Your task to perform on an android device: check google app version Image 0: 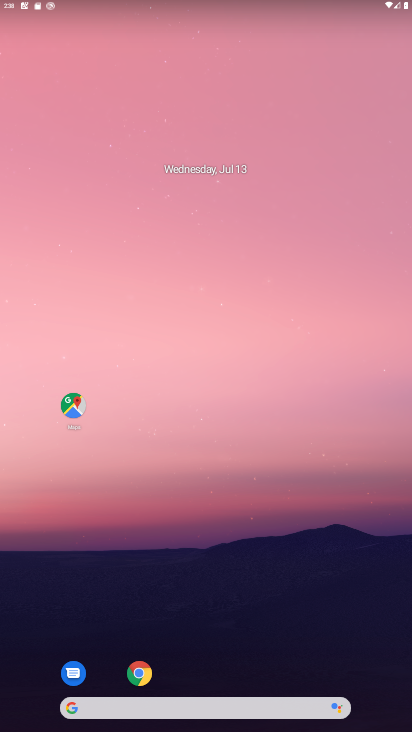
Step 0: drag from (236, 679) to (337, 171)
Your task to perform on an android device: check google app version Image 1: 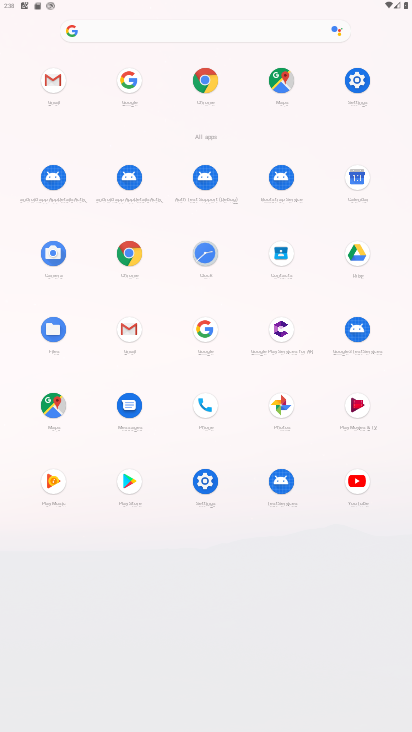
Step 1: click (198, 483)
Your task to perform on an android device: check google app version Image 2: 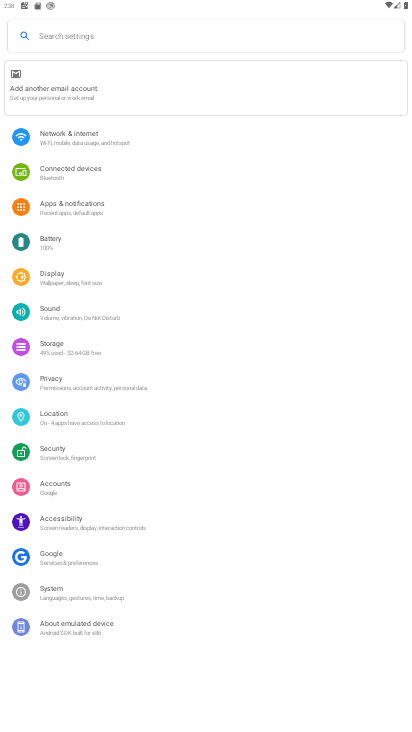
Step 2: click (89, 209)
Your task to perform on an android device: check google app version Image 3: 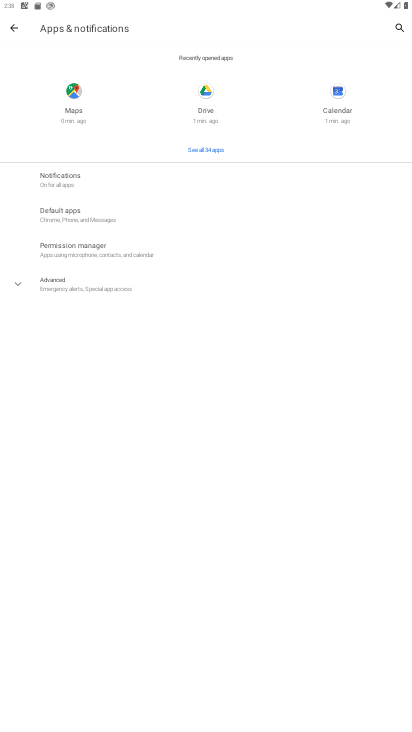
Step 3: click (204, 152)
Your task to perform on an android device: check google app version Image 4: 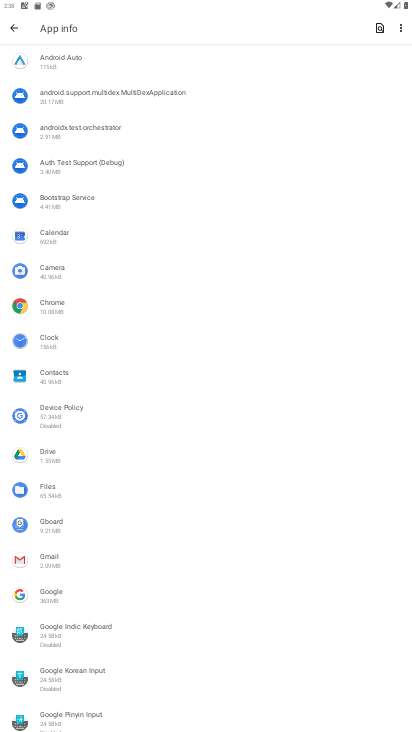
Step 4: drag from (126, 599) to (269, 183)
Your task to perform on an android device: check google app version Image 5: 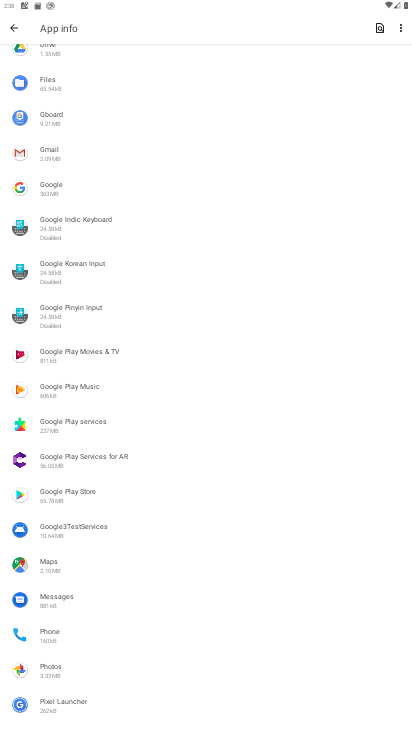
Step 5: drag from (208, 166) to (197, 519)
Your task to perform on an android device: check google app version Image 6: 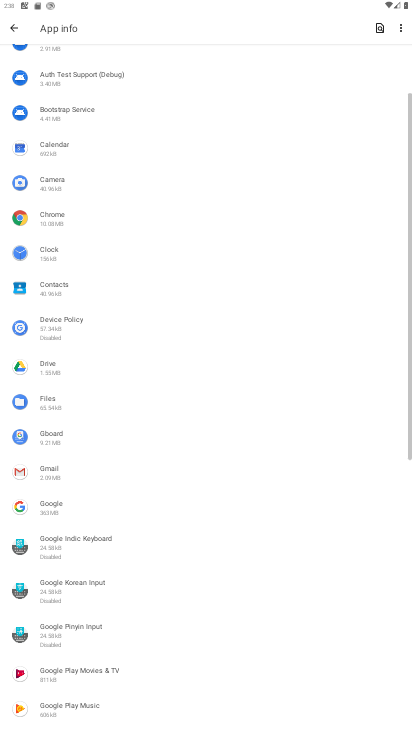
Step 6: click (51, 501)
Your task to perform on an android device: check google app version Image 7: 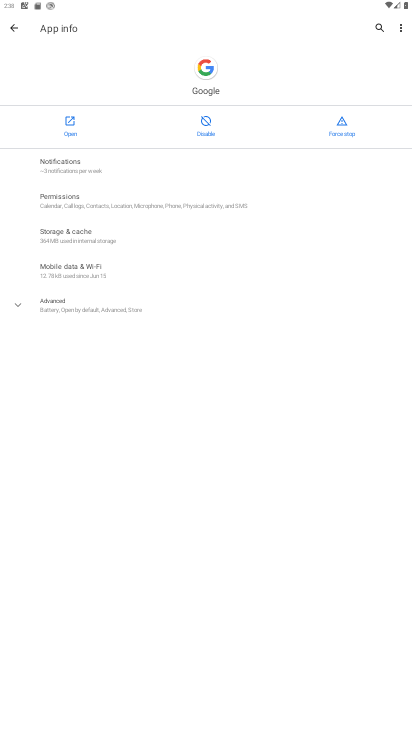
Step 7: click (118, 311)
Your task to perform on an android device: check google app version Image 8: 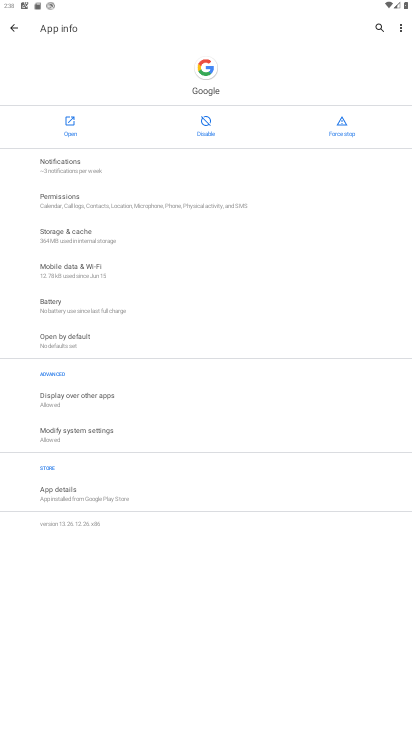
Step 8: task complete